Your task to perform on an android device: open chrome privacy settings Image 0: 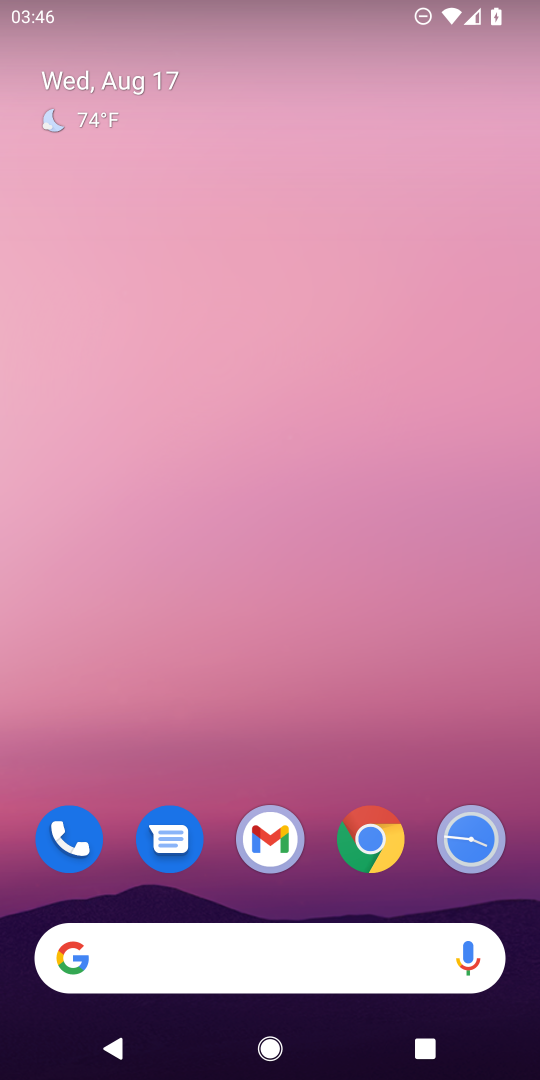
Step 0: click (376, 839)
Your task to perform on an android device: open chrome privacy settings Image 1: 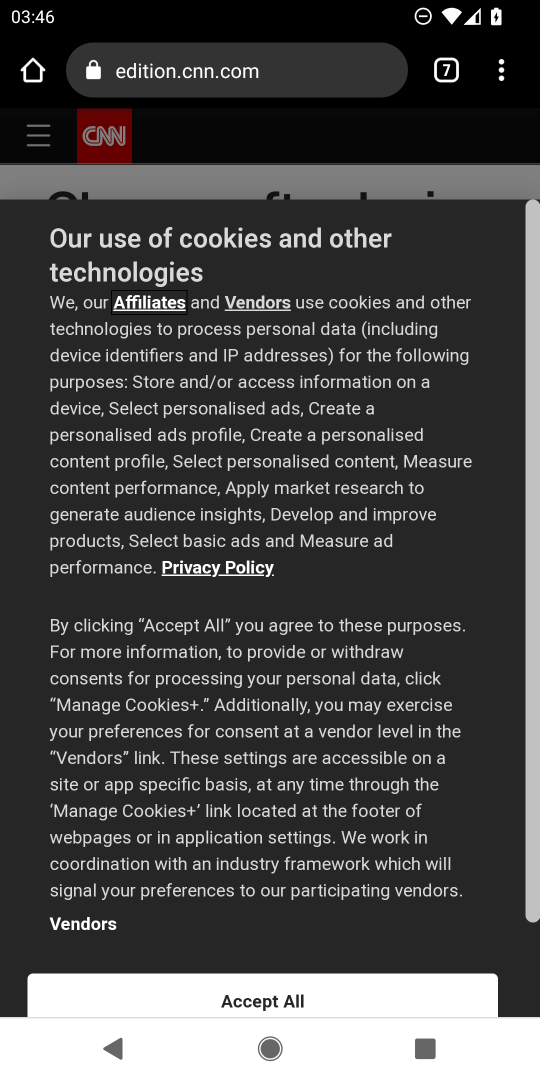
Step 1: click (504, 76)
Your task to perform on an android device: open chrome privacy settings Image 2: 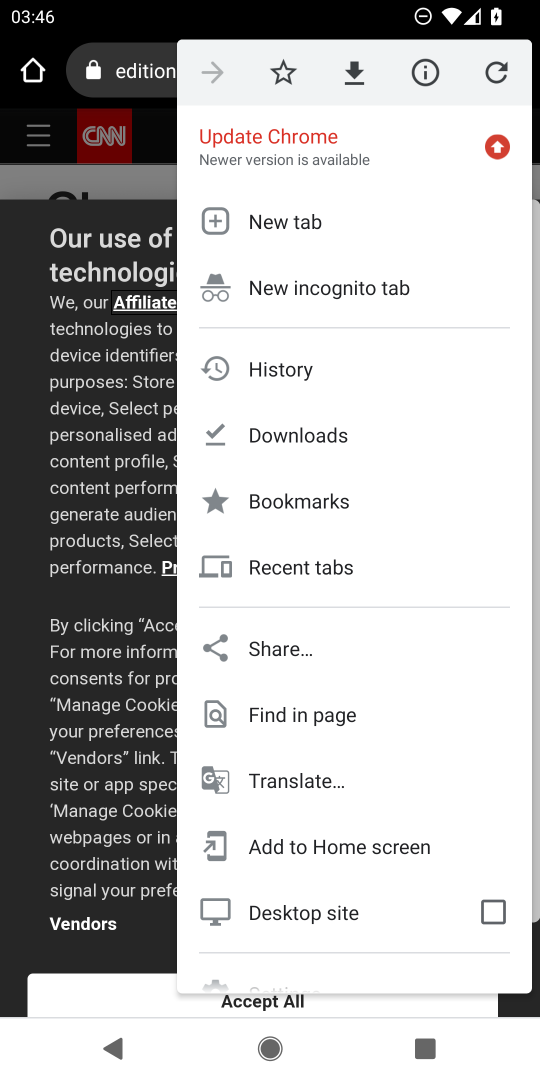
Step 2: drag from (321, 895) to (298, 465)
Your task to perform on an android device: open chrome privacy settings Image 3: 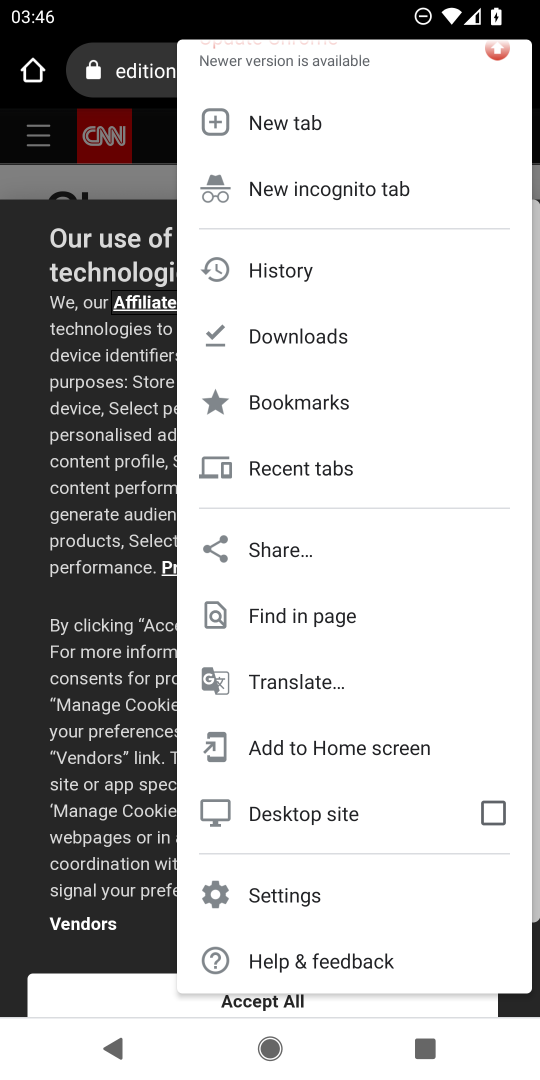
Step 3: click (298, 896)
Your task to perform on an android device: open chrome privacy settings Image 4: 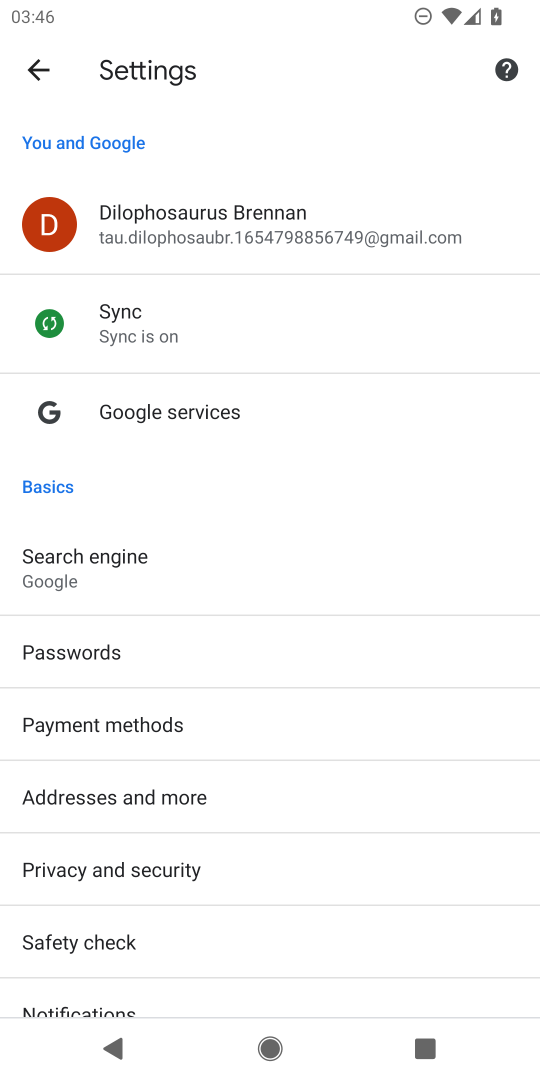
Step 4: click (95, 871)
Your task to perform on an android device: open chrome privacy settings Image 5: 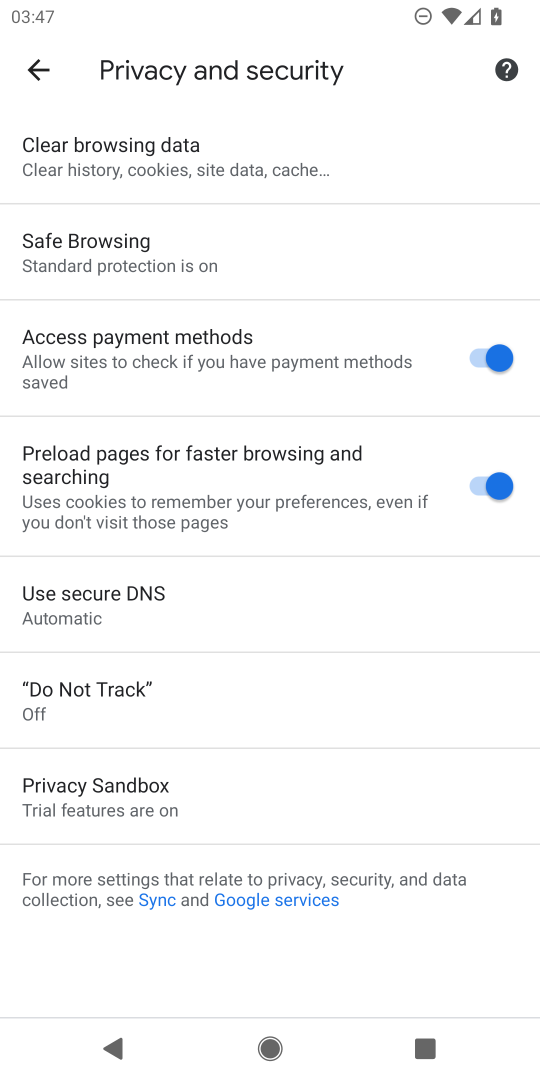
Step 5: task complete